Your task to perform on an android device: Go to ESPN.com Image 0: 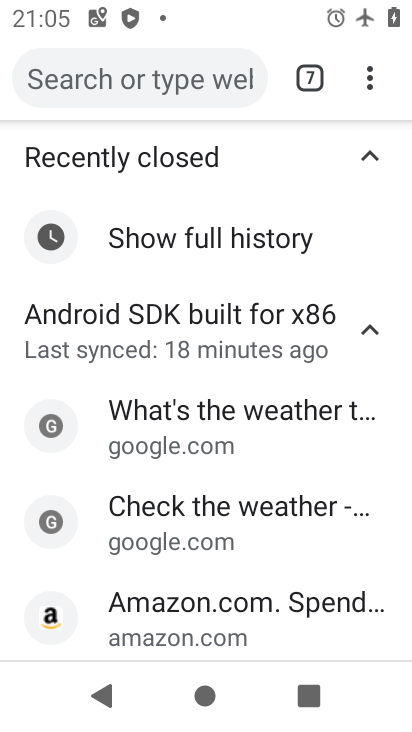
Step 0: press home button
Your task to perform on an android device: Go to ESPN.com Image 1: 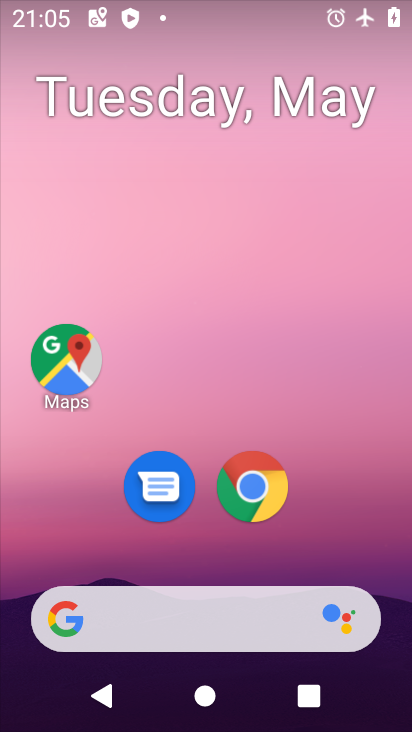
Step 1: click (253, 487)
Your task to perform on an android device: Go to ESPN.com Image 2: 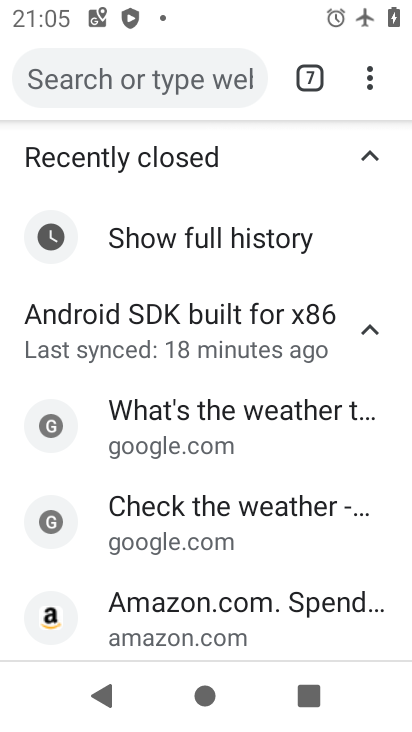
Step 2: click (371, 69)
Your task to perform on an android device: Go to ESPN.com Image 3: 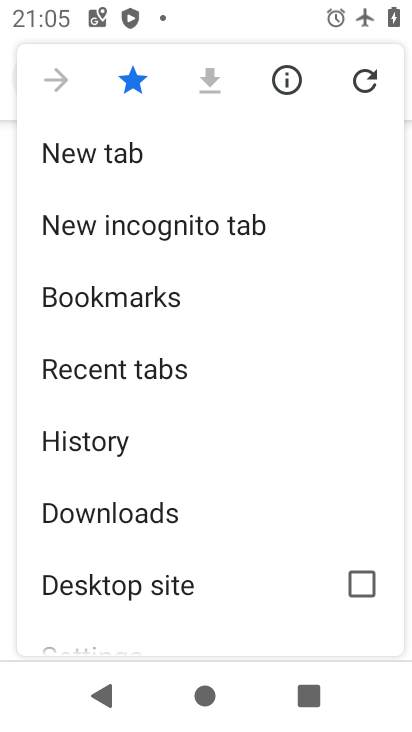
Step 3: click (99, 148)
Your task to perform on an android device: Go to ESPN.com Image 4: 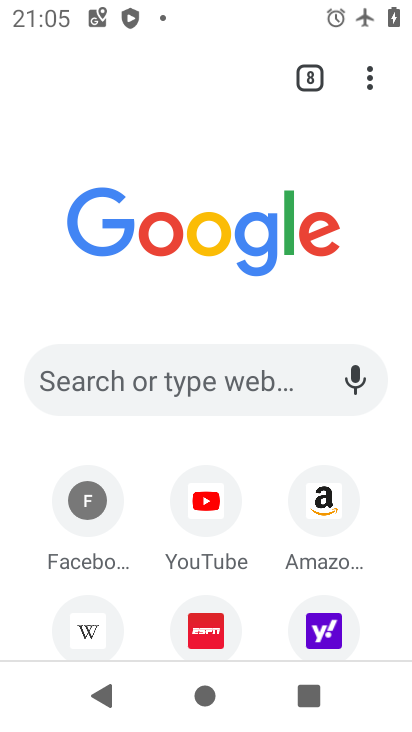
Step 4: click (161, 369)
Your task to perform on an android device: Go to ESPN.com Image 5: 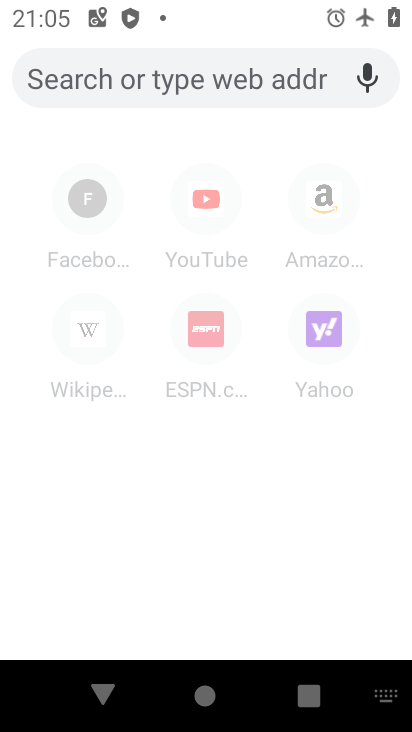
Step 5: type "espn.com"
Your task to perform on an android device: Go to ESPN.com Image 6: 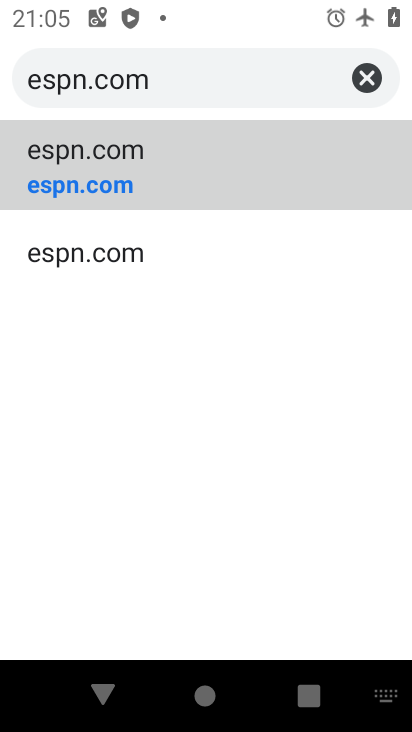
Step 6: click (86, 164)
Your task to perform on an android device: Go to ESPN.com Image 7: 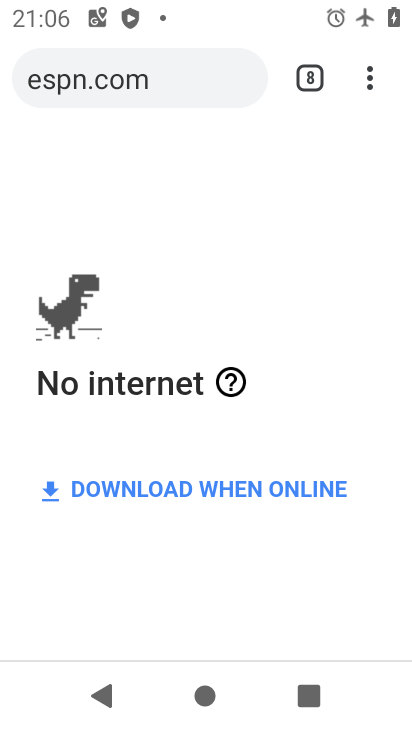
Step 7: click (86, 164)
Your task to perform on an android device: Go to ESPN.com Image 8: 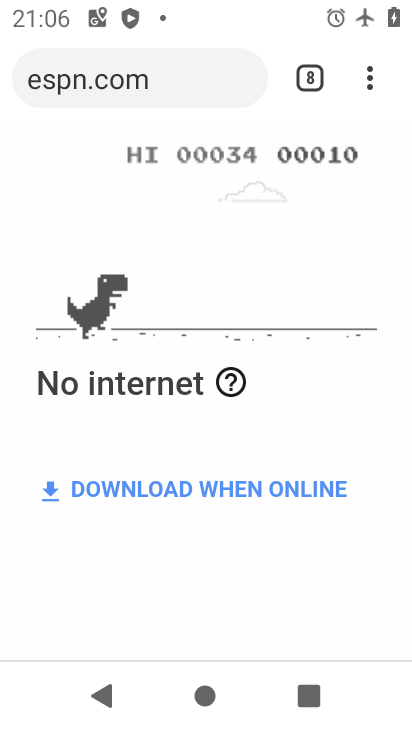
Step 8: task complete